Your task to perform on an android device: toggle notification dots Image 0: 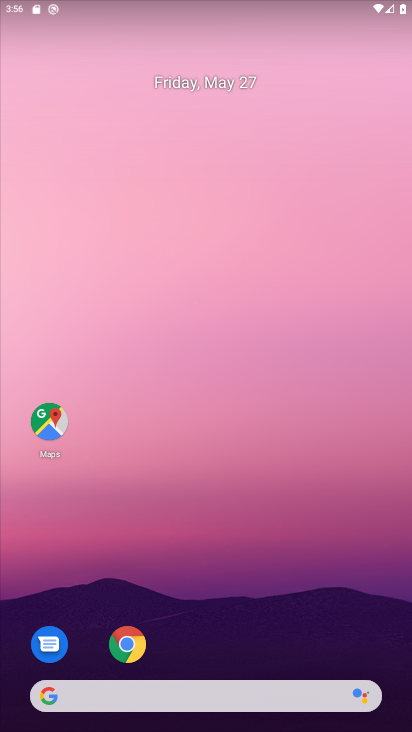
Step 0: drag from (292, 586) to (174, 8)
Your task to perform on an android device: toggle notification dots Image 1: 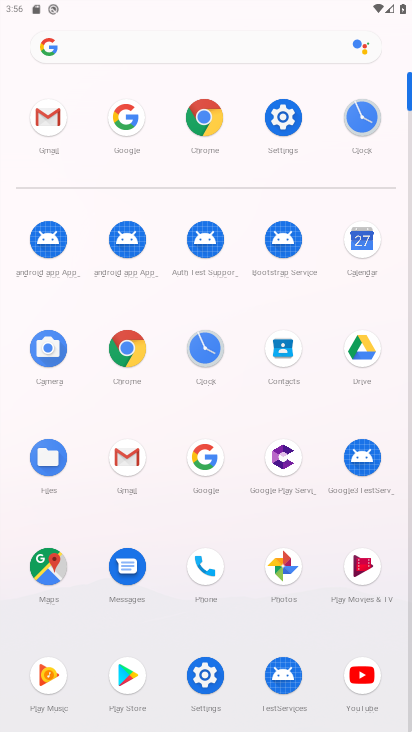
Step 1: click (292, 118)
Your task to perform on an android device: toggle notification dots Image 2: 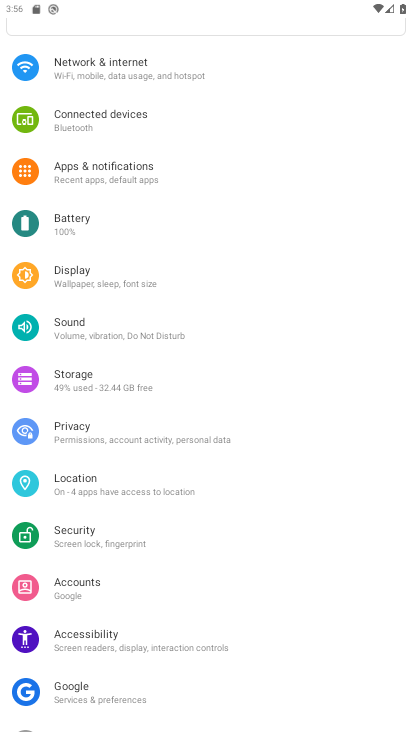
Step 2: drag from (242, 649) to (198, 612)
Your task to perform on an android device: toggle notification dots Image 3: 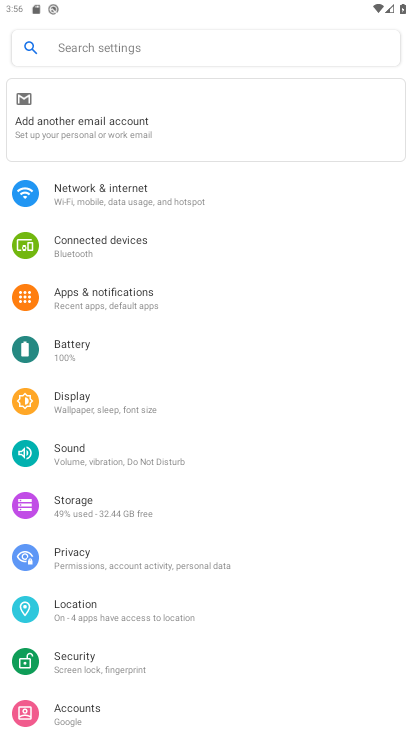
Step 3: click (121, 293)
Your task to perform on an android device: toggle notification dots Image 4: 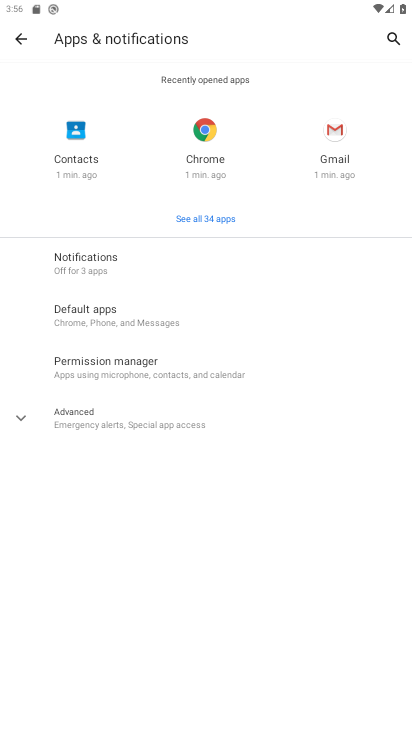
Step 4: click (148, 270)
Your task to perform on an android device: toggle notification dots Image 5: 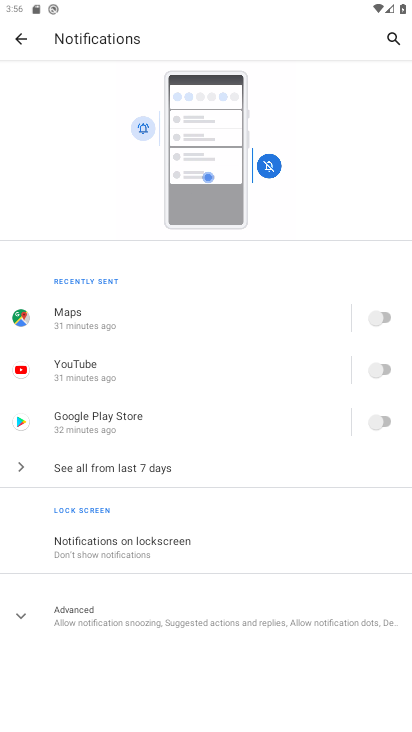
Step 5: click (198, 612)
Your task to perform on an android device: toggle notification dots Image 6: 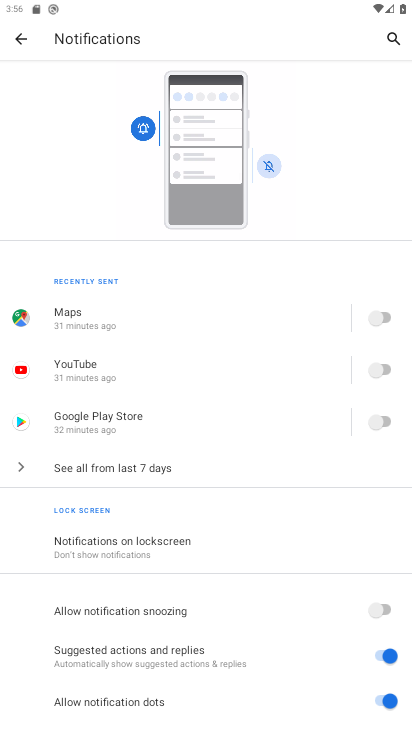
Step 6: click (392, 699)
Your task to perform on an android device: toggle notification dots Image 7: 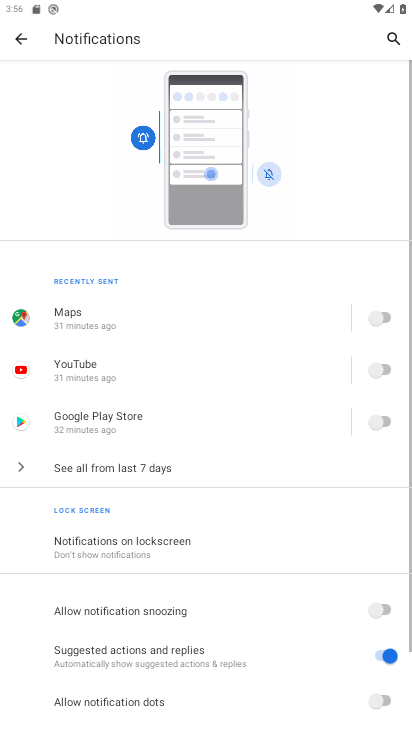
Step 7: task complete